Your task to perform on an android device: Open Google Maps and go to "Timeline" Image 0: 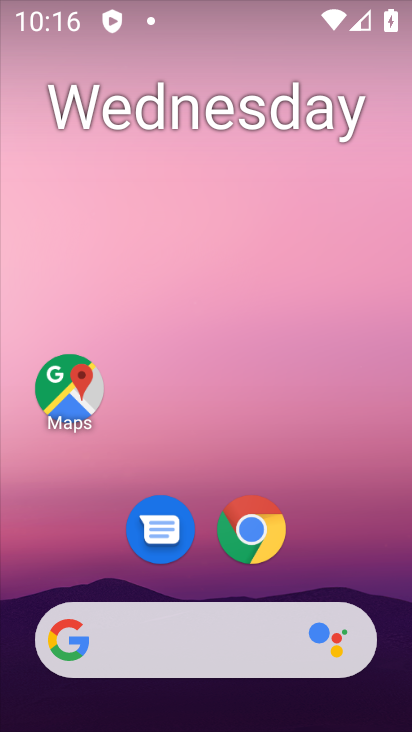
Step 0: click (64, 386)
Your task to perform on an android device: Open Google Maps and go to "Timeline" Image 1: 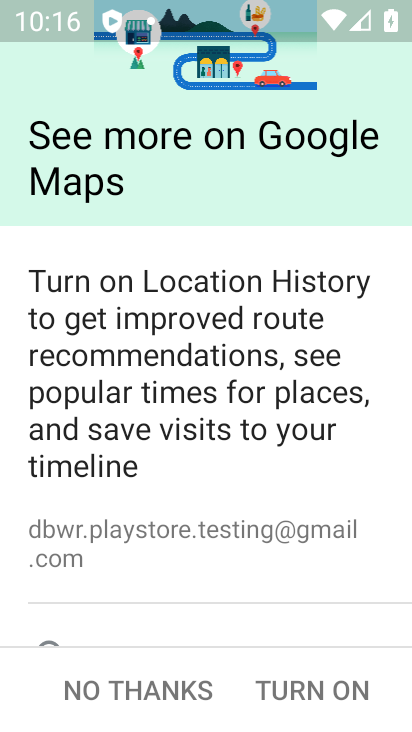
Step 1: click (153, 676)
Your task to perform on an android device: Open Google Maps and go to "Timeline" Image 2: 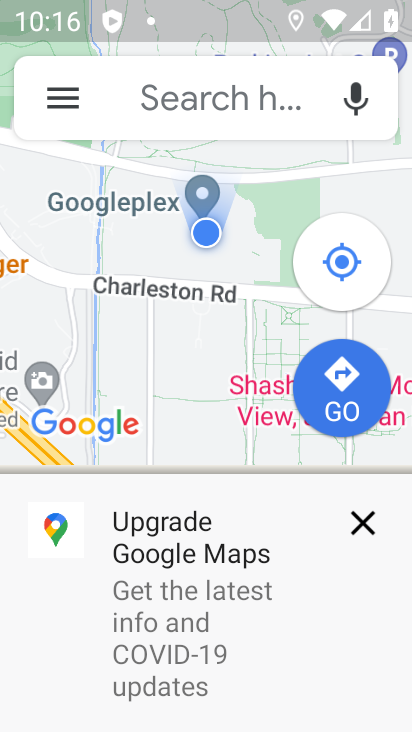
Step 2: click (355, 520)
Your task to perform on an android device: Open Google Maps and go to "Timeline" Image 3: 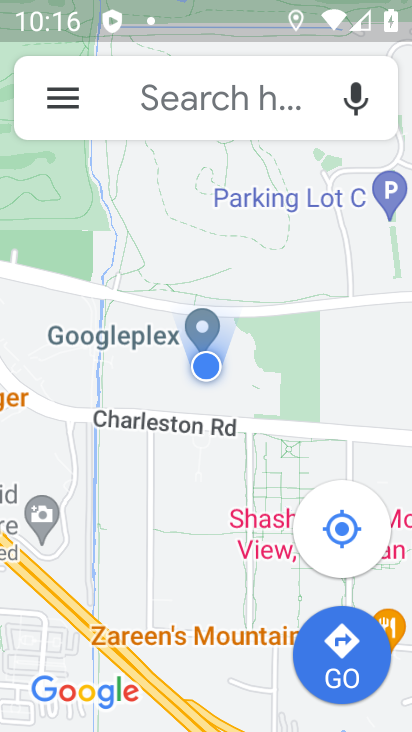
Step 3: click (57, 96)
Your task to perform on an android device: Open Google Maps and go to "Timeline" Image 4: 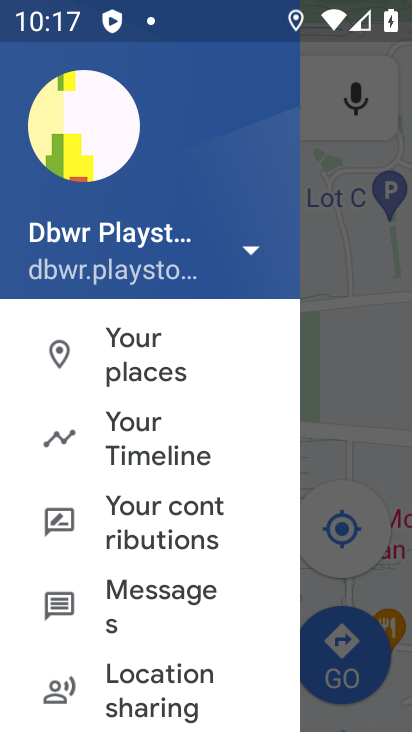
Step 4: click (145, 463)
Your task to perform on an android device: Open Google Maps and go to "Timeline" Image 5: 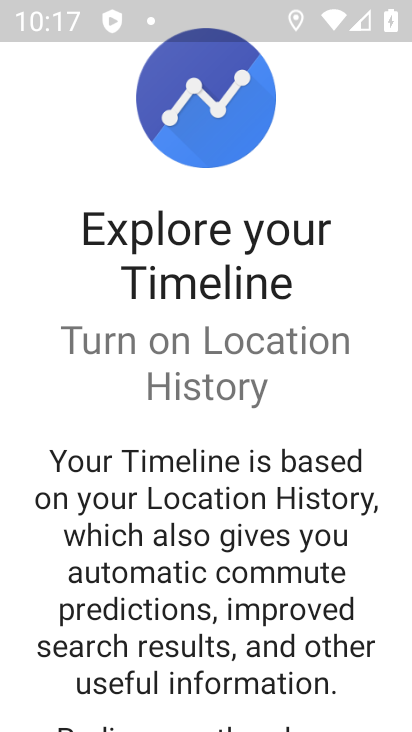
Step 5: task complete